Your task to perform on an android device: check the backup settings in the google photos Image 0: 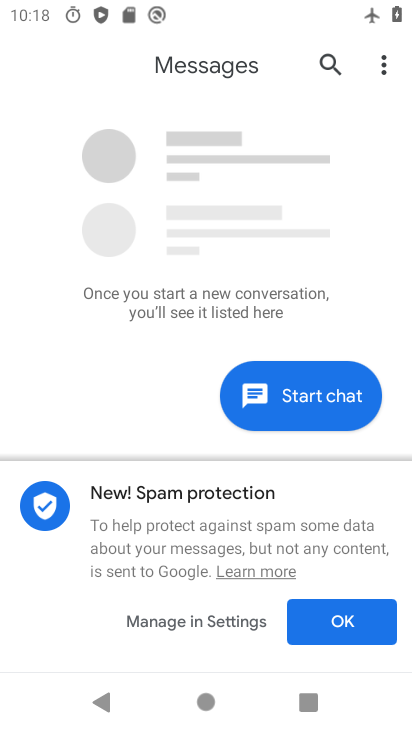
Step 0: press home button
Your task to perform on an android device: check the backup settings in the google photos Image 1: 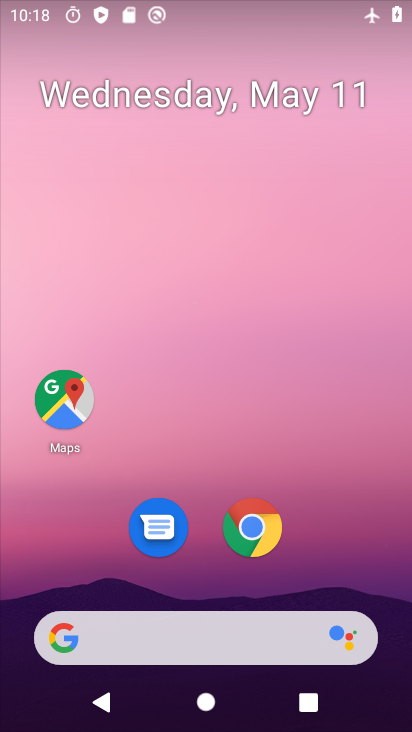
Step 1: drag from (304, 602) to (327, 175)
Your task to perform on an android device: check the backup settings in the google photos Image 2: 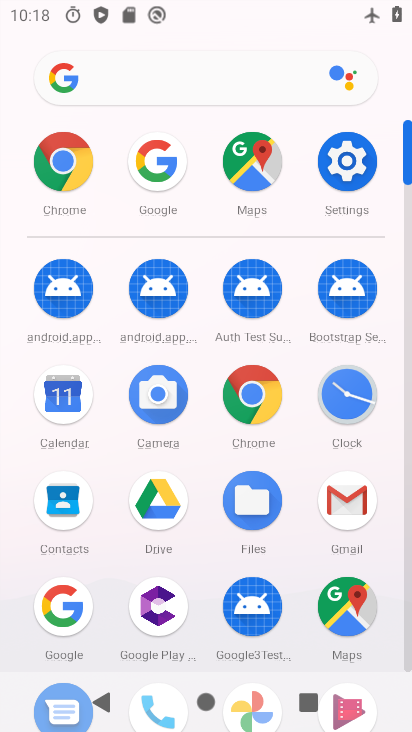
Step 2: drag from (291, 541) to (305, 365)
Your task to perform on an android device: check the backup settings in the google photos Image 3: 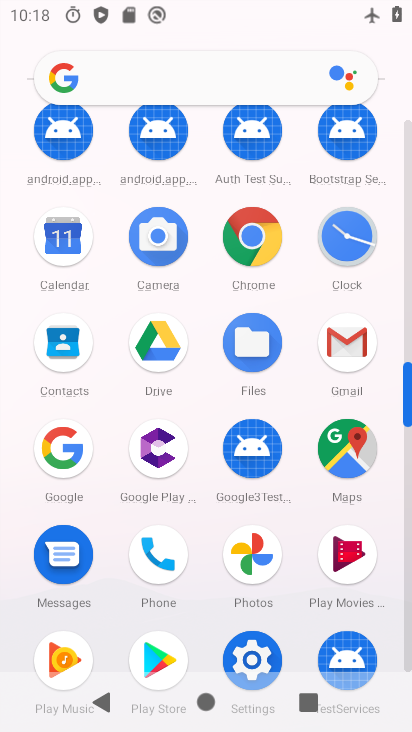
Step 3: click (273, 551)
Your task to perform on an android device: check the backup settings in the google photos Image 4: 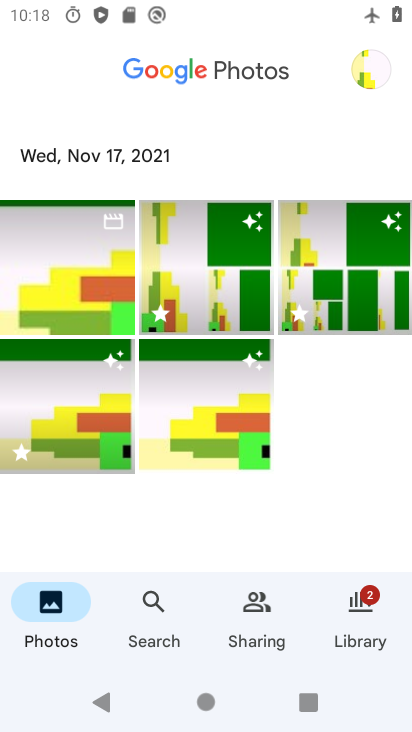
Step 4: click (380, 66)
Your task to perform on an android device: check the backup settings in the google photos Image 5: 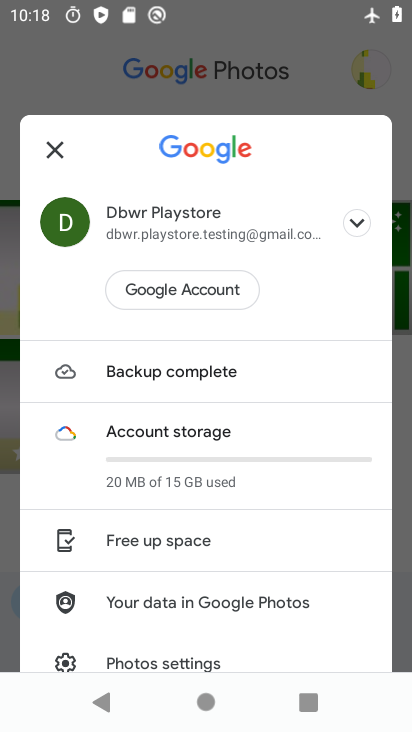
Step 5: drag from (257, 448) to (292, 218)
Your task to perform on an android device: check the backup settings in the google photos Image 6: 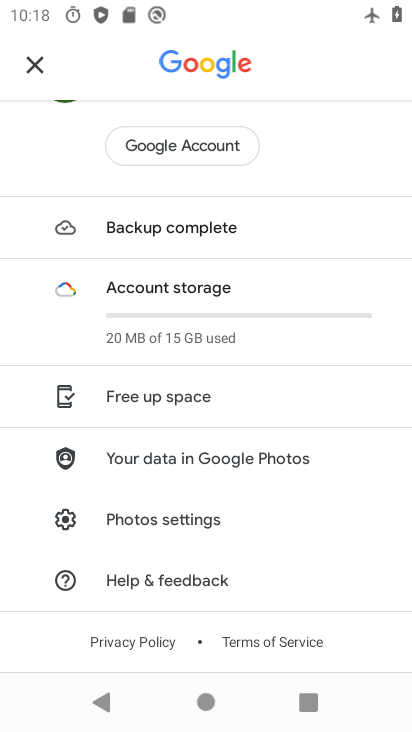
Step 6: drag from (220, 504) to (238, 412)
Your task to perform on an android device: check the backup settings in the google photos Image 7: 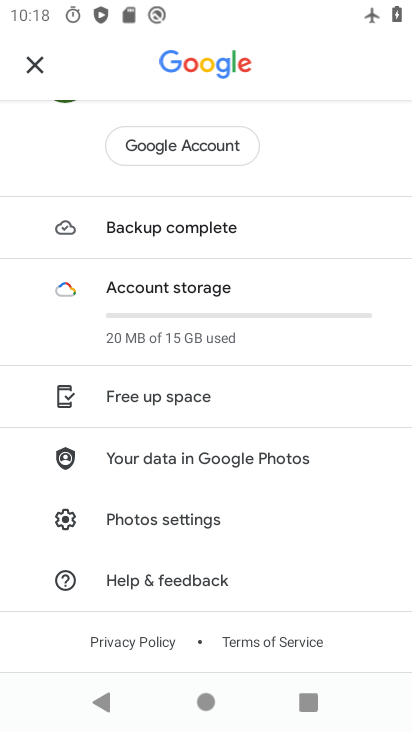
Step 7: click (192, 522)
Your task to perform on an android device: check the backup settings in the google photos Image 8: 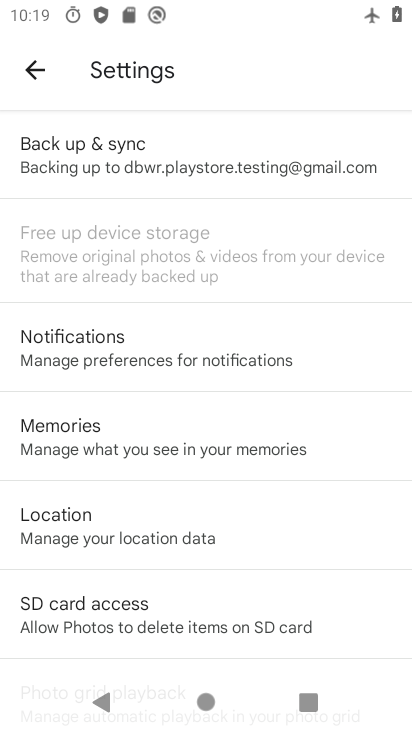
Step 8: click (186, 151)
Your task to perform on an android device: check the backup settings in the google photos Image 9: 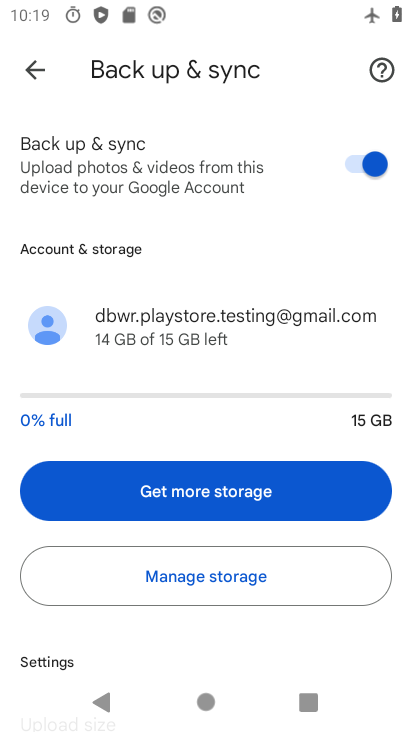
Step 9: task complete